Your task to perform on an android device: Search for sushi restaurants on Maps Image 0: 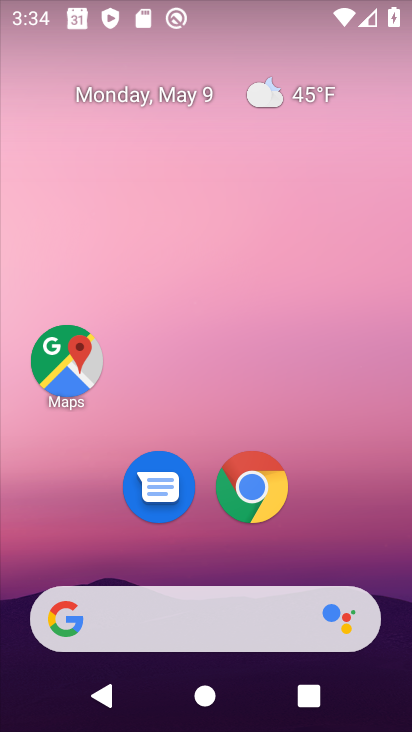
Step 0: click (63, 367)
Your task to perform on an android device: Search for sushi restaurants on Maps Image 1: 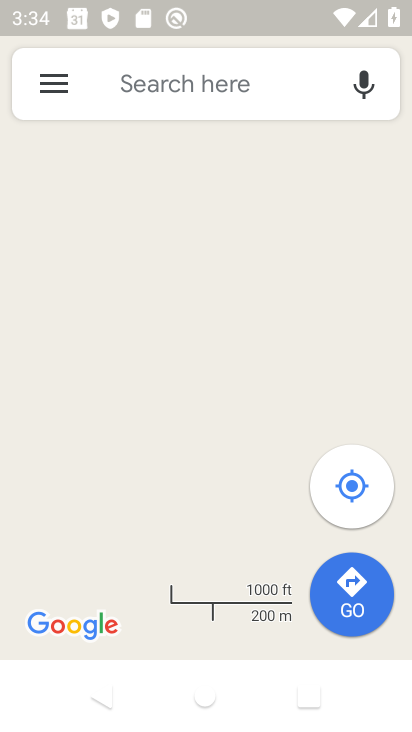
Step 1: click (181, 90)
Your task to perform on an android device: Search for sushi restaurants on Maps Image 2: 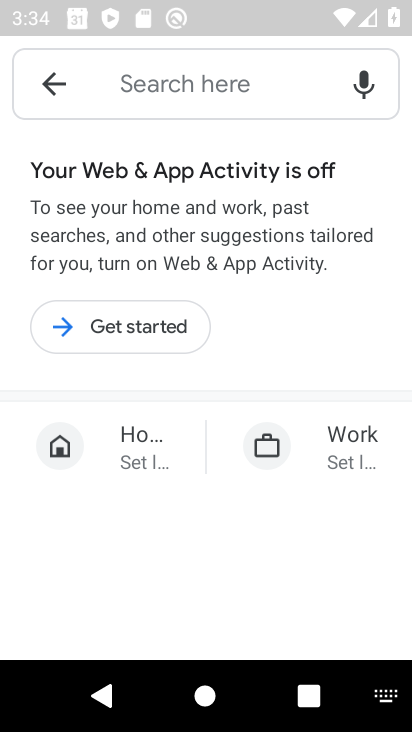
Step 2: click (150, 86)
Your task to perform on an android device: Search for sushi restaurants on Maps Image 3: 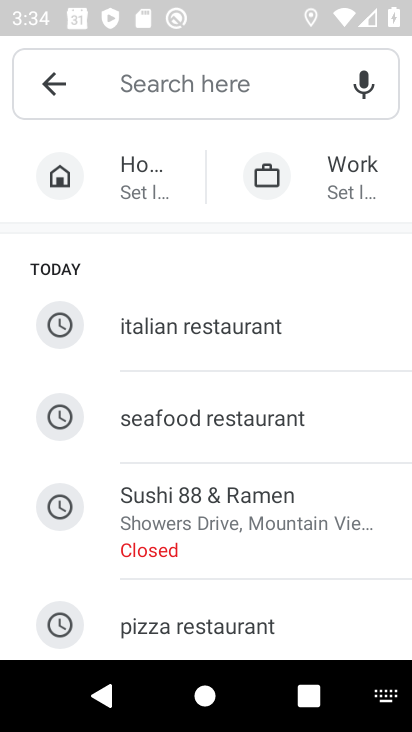
Step 3: type "sushi restaurants"
Your task to perform on an android device: Search for sushi restaurants on Maps Image 4: 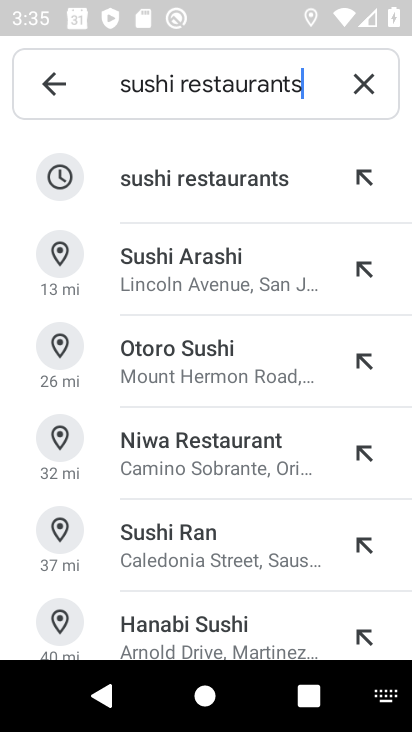
Step 4: click (172, 186)
Your task to perform on an android device: Search for sushi restaurants on Maps Image 5: 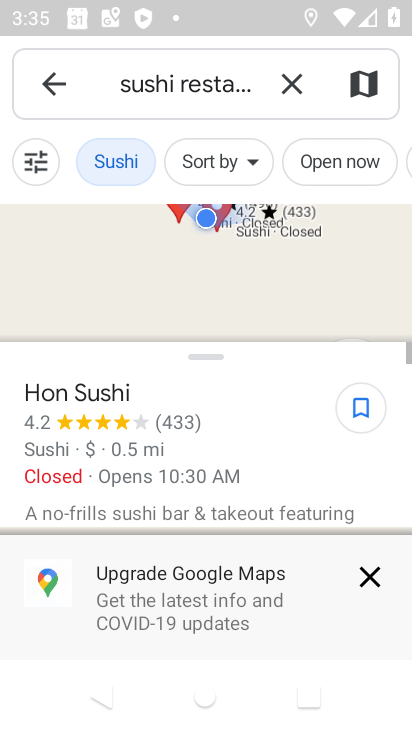
Step 5: task complete